Your task to perform on an android device: Open my contact list Image 0: 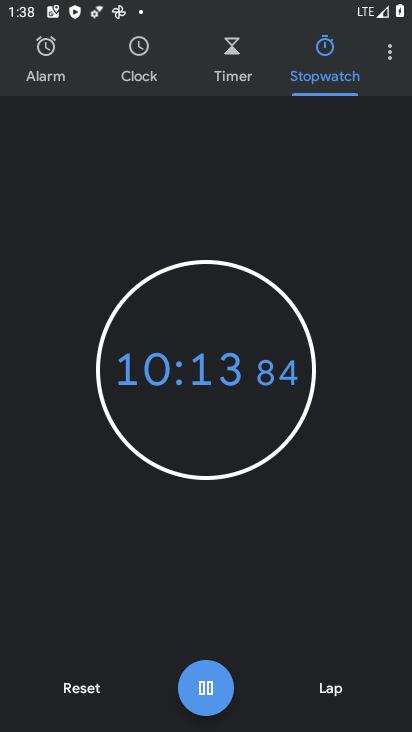
Step 0: drag from (409, 577) to (382, 496)
Your task to perform on an android device: Open my contact list Image 1: 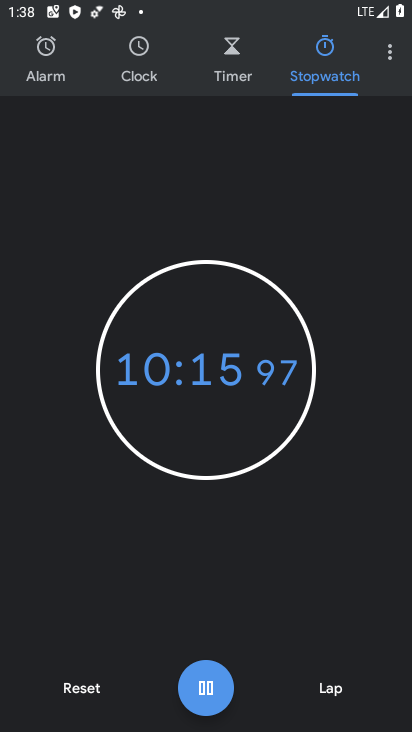
Step 1: press back button
Your task to perform on an android device: Open my contact list Image 2: 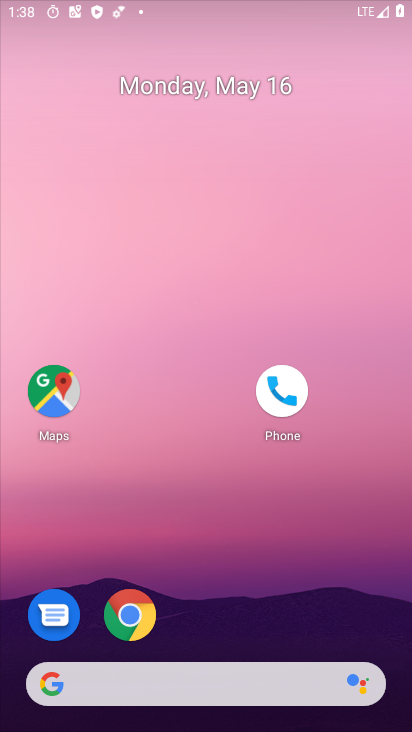
Step 2: drag from (142, 645) to (215, 106)
Your task to perform on an android device: Open my contact list Image 3: 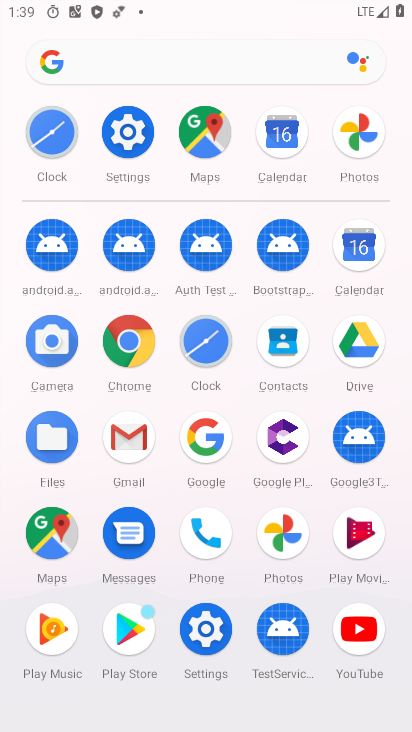
Step 3: click (295, 355)
Your task to perform on an android device: Open my contact list Image 4: 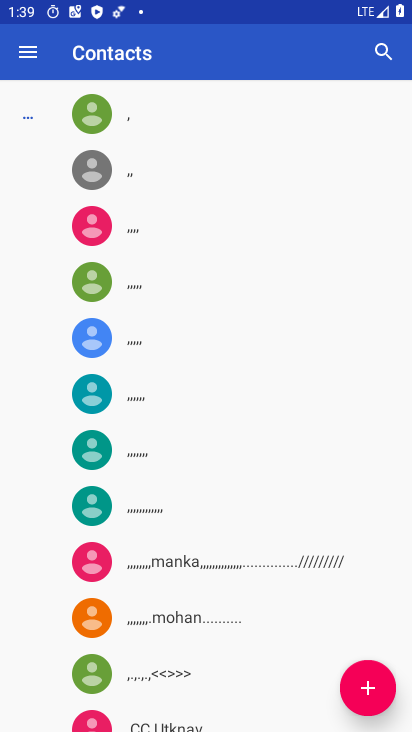
Step 4: task complete